Your task to perform on an android device: Open sound settings Image 0: 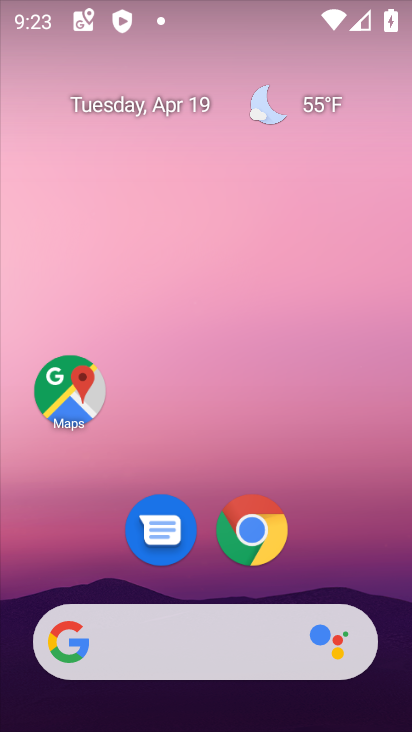
Step 0: drag from (326, 522) to (300, 56)
Your task to perform on an android device: Open sound settings Image 1: 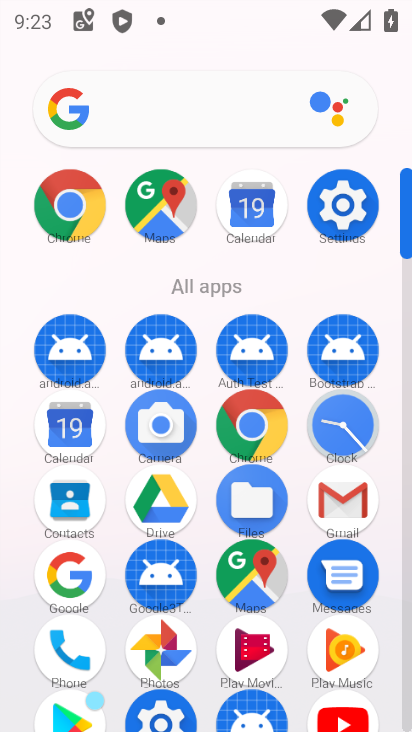
Step 1: click (339, 205)
Your task to perform on an android device: Open sound settings Image 2: 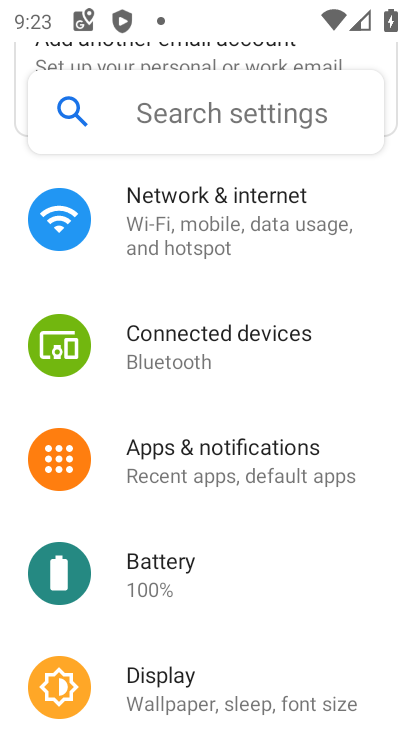
Step 2: drag from (280, 559) to (253, 106)
Your task to perform on an android device: Open sound settings Image 3: 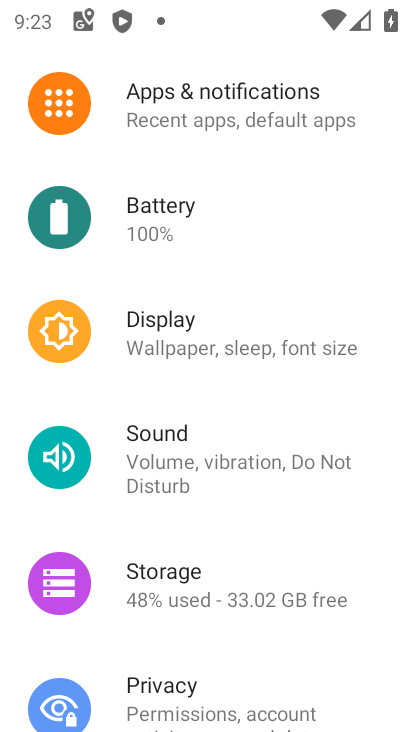
Step 3: click (187, 452)
Your task to perform on an android device: Open sound settings Image 4: 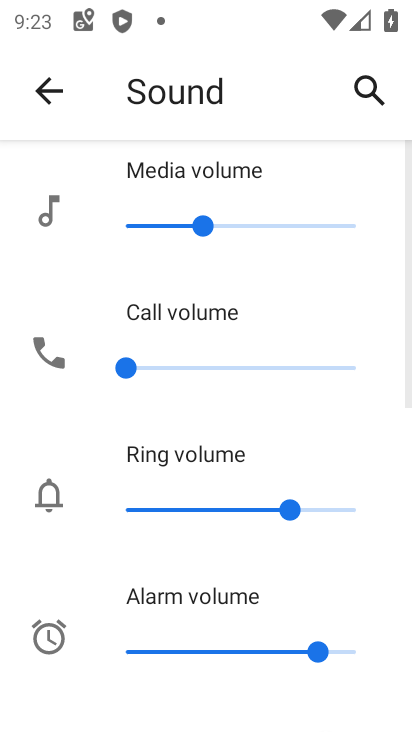
Step 4: task complete